Your task to perform on an android device: change text size in settings app Image 0: 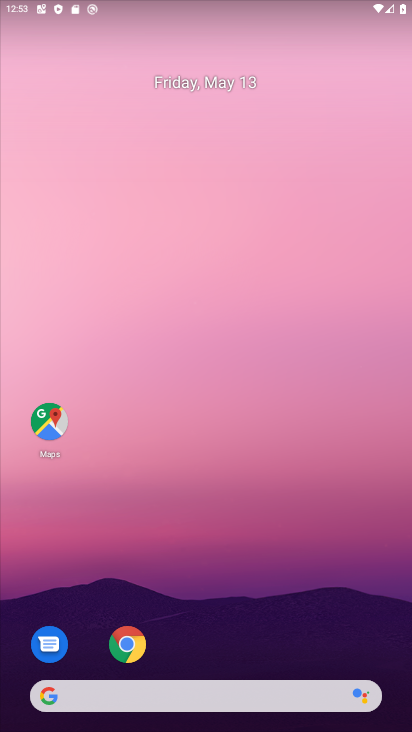
Step 0: drag from (246, 607) to (263, 88)
Your task to perform on an android device: change text size in settings app Image 1: 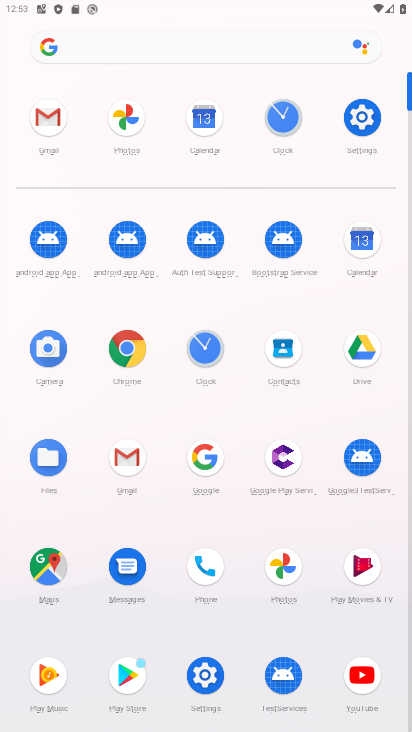
Step 1: click (362, 125)
Your task to perform on an android device: change text size in settings app Image 2: 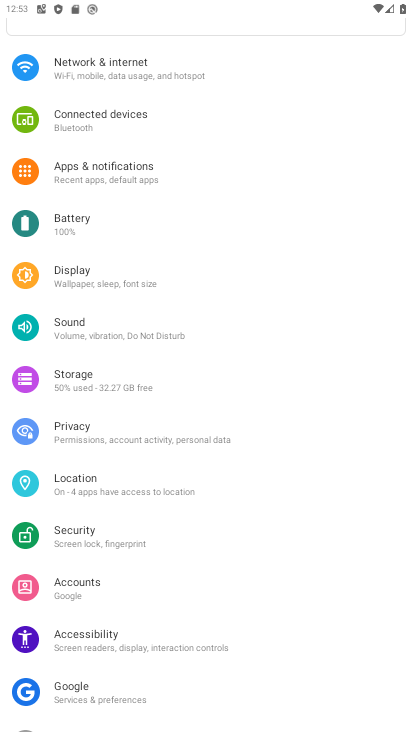
Step 2: click (125, 281)
Your task to perform on an android device: change text size in settings app Image 3: 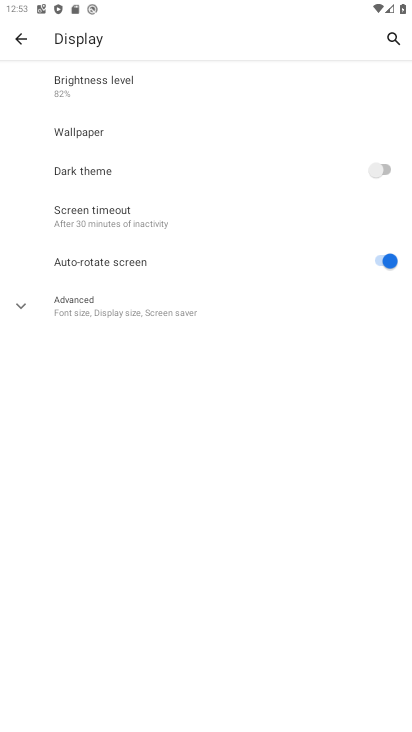
Step 3: click (129, 317)
Your task to perform on an android device: change text size in settings app Image 4: 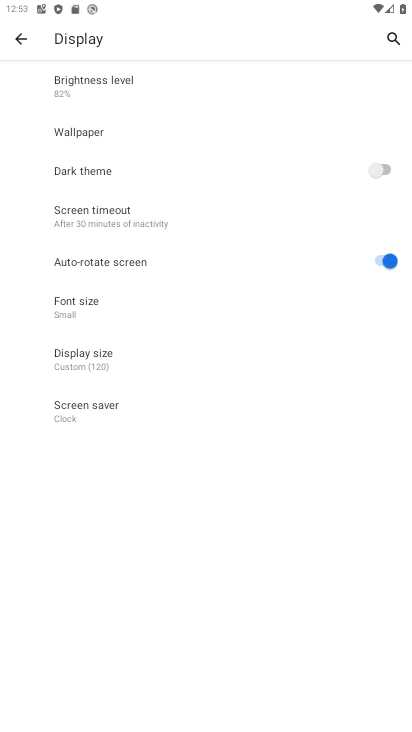
Step 4: click (89, 305)
Your task to perform on an android device: change text size in settings app Image 5: 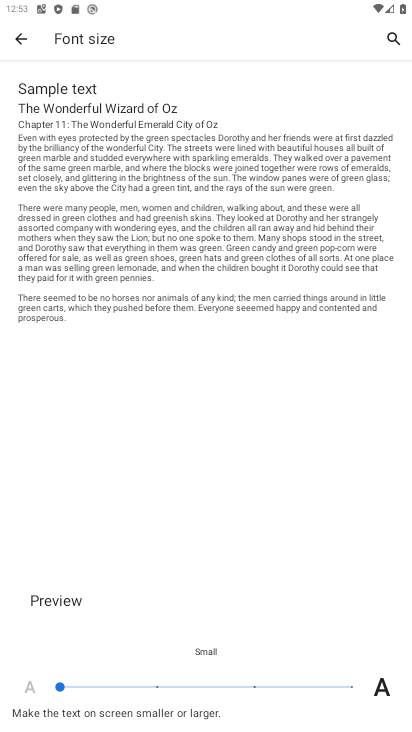
Step 5: click (152, 683)
Your task to perform on an android device: change text size in settings app Image 6: 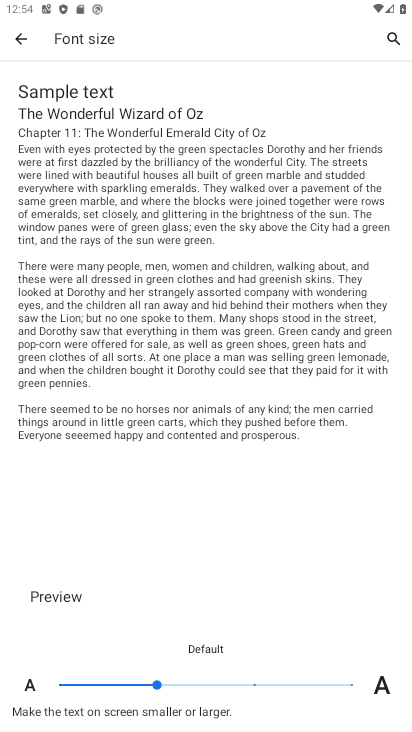
Step 6: task complete